Your task to perform on an android device: Go to ESPN.com Image 0: 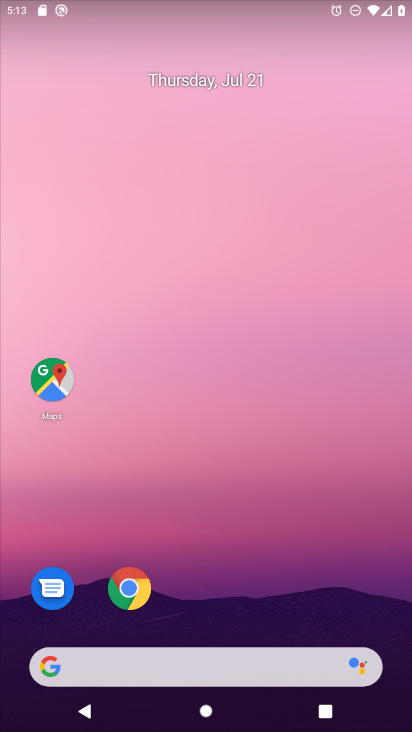
Step 0: drag from (346, 617) to (243, 154)
Your task to perform on an android device: Go to ESPN.com Image 1: 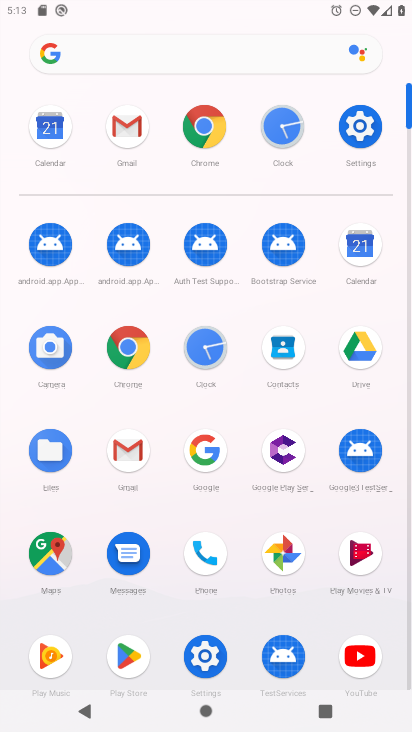
Step 1: click (208, 128)
Your task to perform on an android device: Go to ESPN.com Image 2: 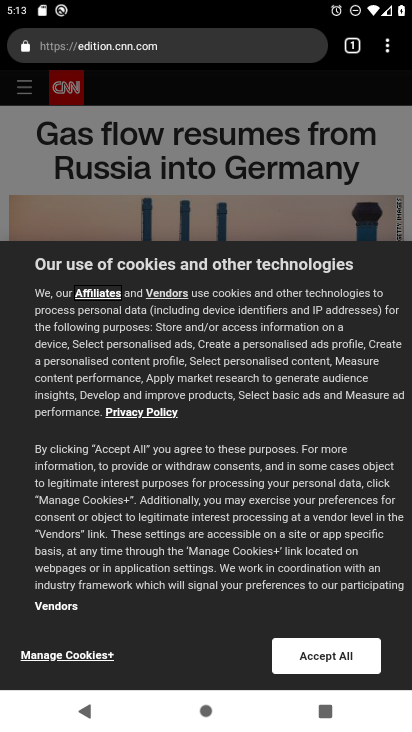
Step 2: click (162, 47)
Your task to perform on an android device: Go to ESPN.com Image 3: 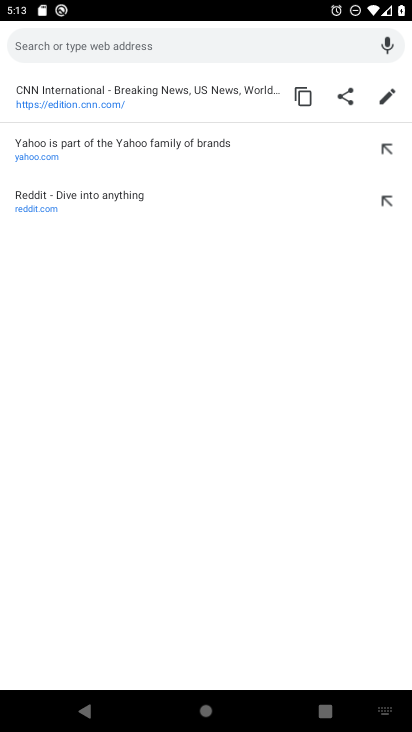
Step 3: type "espn.com"
Your task to perform on an android device: Go to ESPN.com Image 4: 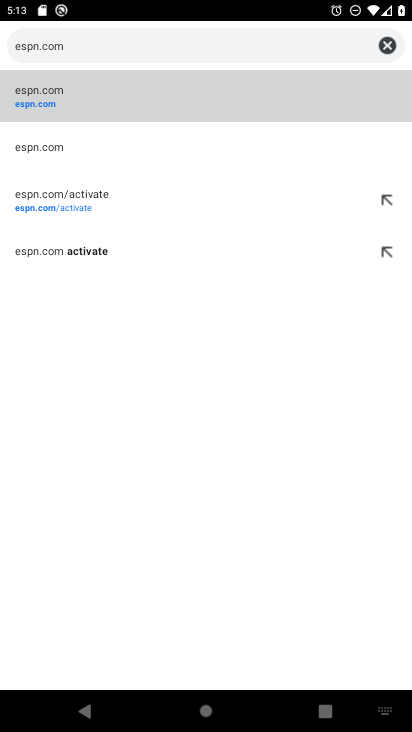
Step 4: click (284, 104)
Your task to perform on an android device: Go to ESPN.com Image 5: 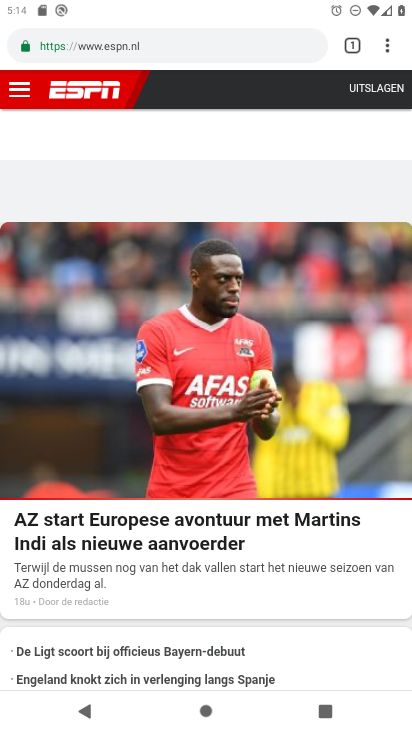
Step 5: task complete